Your task to perform on an android device: Is it going to rain today? Image 0: 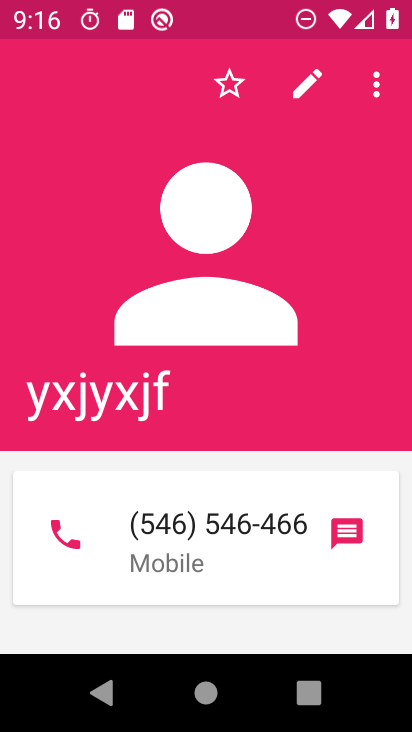
Step 0: press home button
Your task to perform on an android device: Is it going to rain today? Image 1: 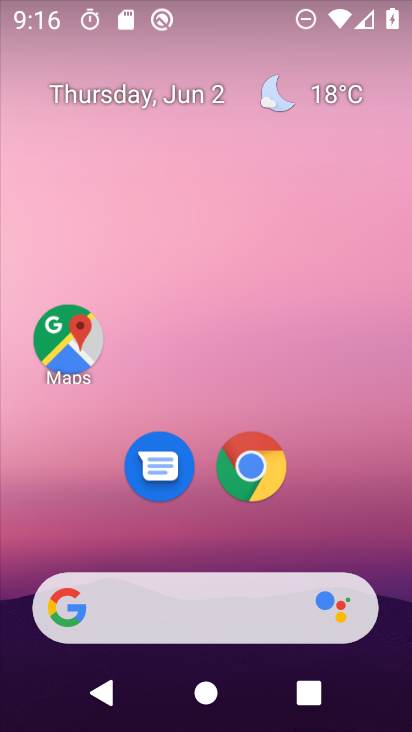
Step 1: click (54, 603)
Your task to perform on an android device: Is it going to rain today? Image 2: 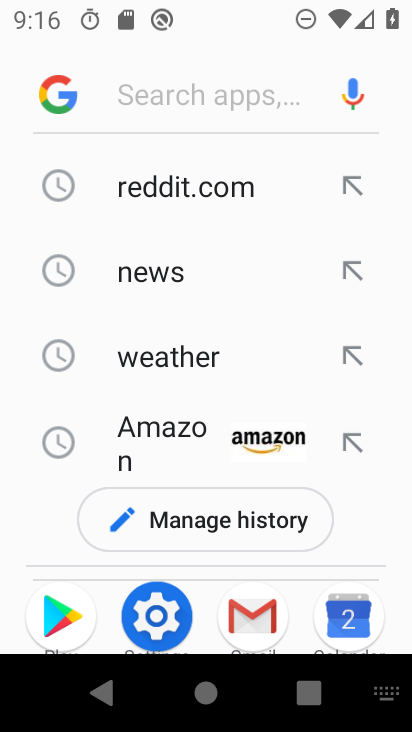
Step 2: type "rain today?"
Your task to perform on an android device: Is it going to rain today? Image 3: 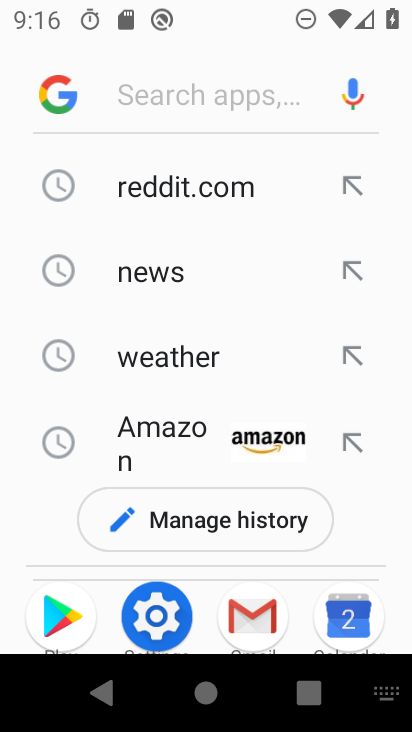
Step 3: click (182, 98)
Your task to perform on an android device: Is it going to rain today? Image 4: 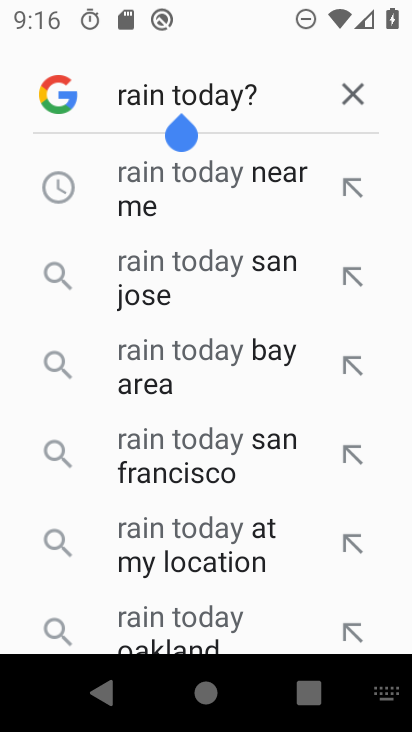
Step 4: drag from (93, 461) to (129, 139)
Your task to perform on an android device: Is it going to rain today? Image 5: 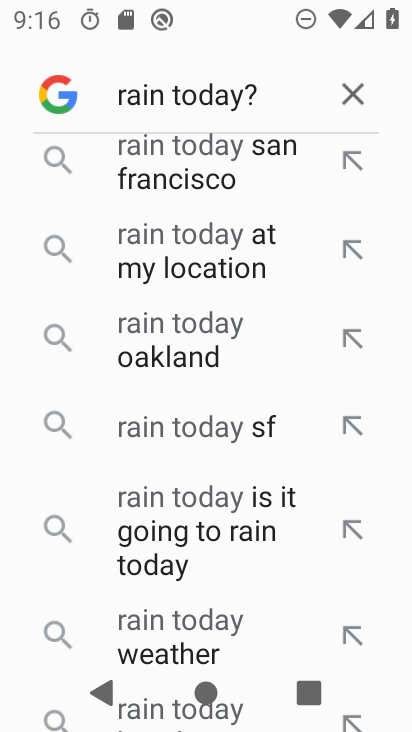
Step 5: click (357, 102)
Your task to perform on an android device: Is it going to rain today? Image 6: 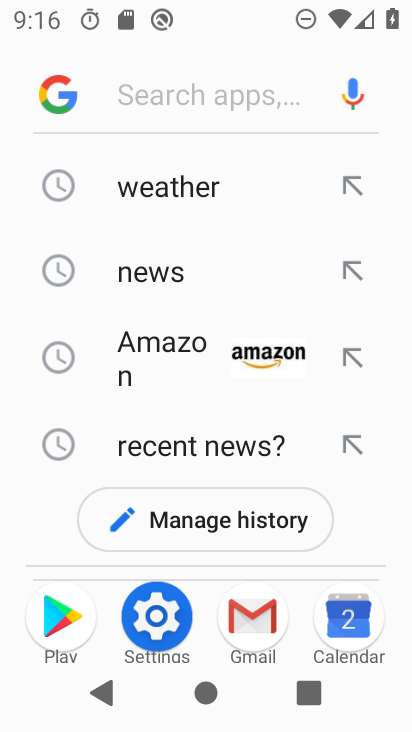
Step 6: type "rain today"
Your task to perform on an android device: Is it going to rain today? Image 7: 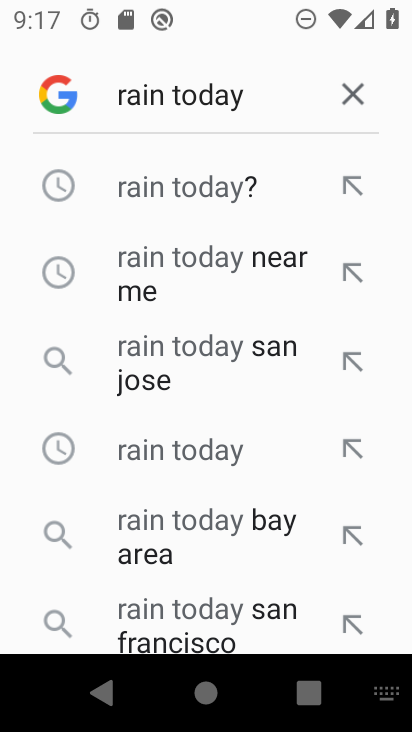
Step 7: click (188, 183)
Your task to perform on an android device: Is it going to rain today? Image 8: 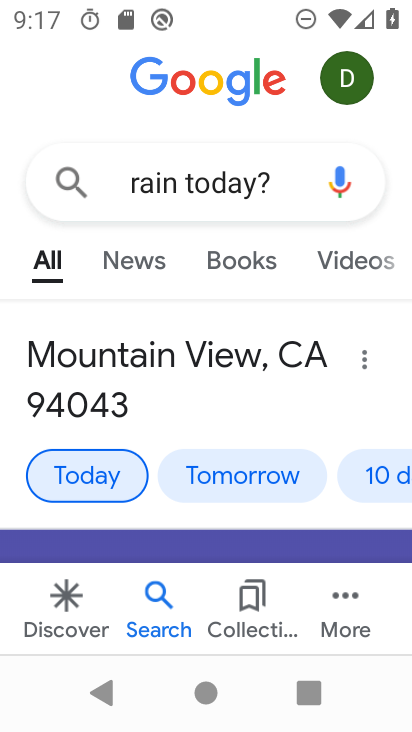
Step 8: task complete